Your task to perform on an android device: show emergency info Image 0: 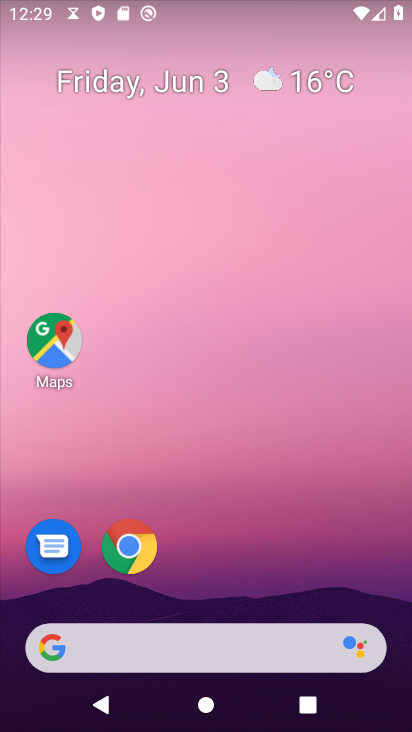
Step 0: drag from (272, 596) to (260, 33)
Your task to perform on an android device: show emergency info Image 1: 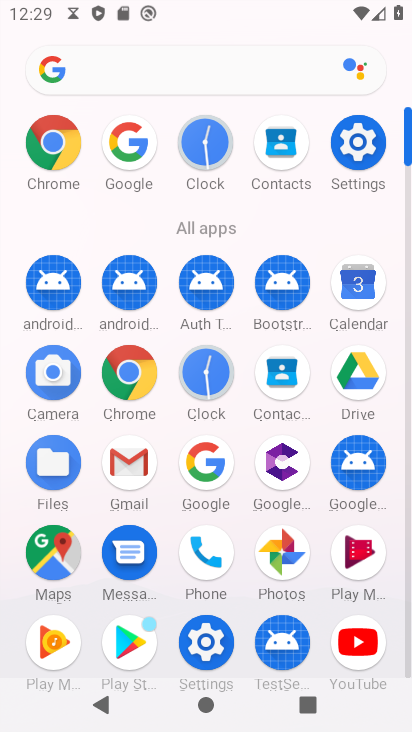
Step 1: click (352, 156)
Your task to perform on an android device: show emergency info Image 2: 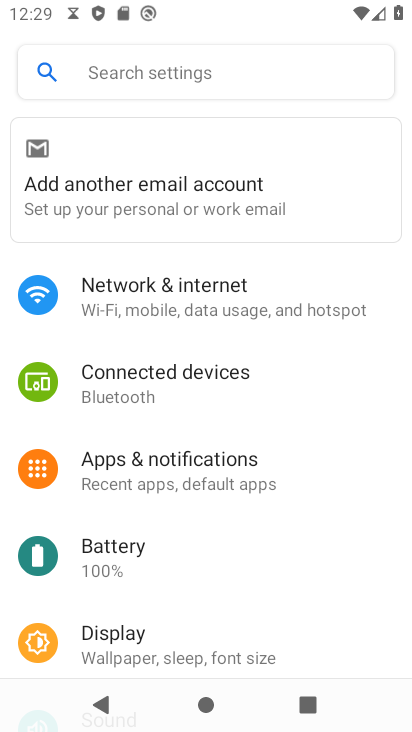
Step 2: drag from (178, 648) to (245, 86)
Your task to perform on an android device: show emergency info Image 3: 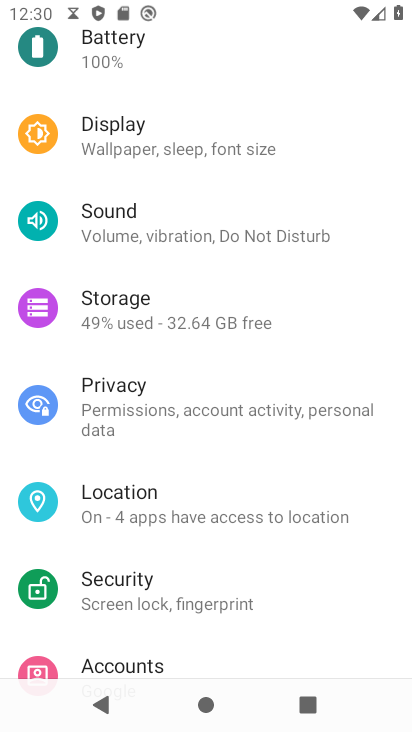
Step 3: drag from (132, 652) to (273, 42)
Your task to perform on an android device: show emergency info Image 4: 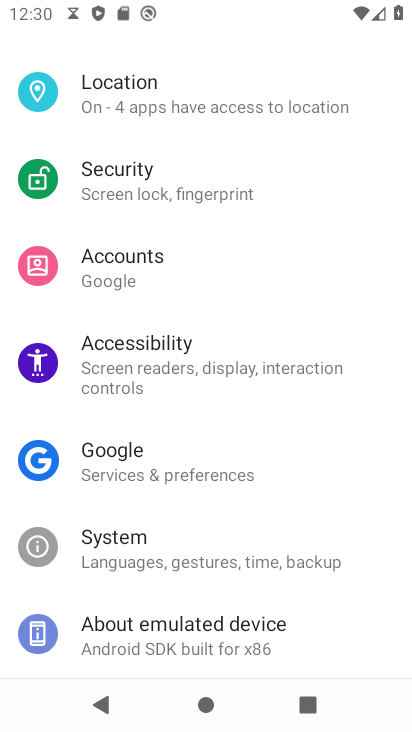
Step 4: click (197, 642)
Your task to perform on an android device: show emergency info Image 5: 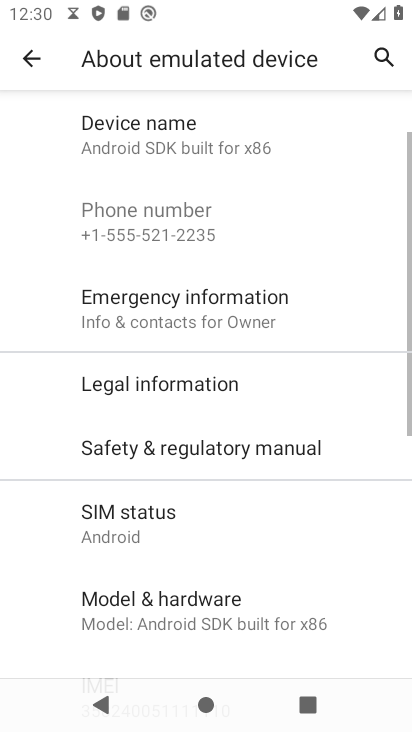
Step 5: click (138, 306)
Your task to perform on an android device: show emergency info Image 6: 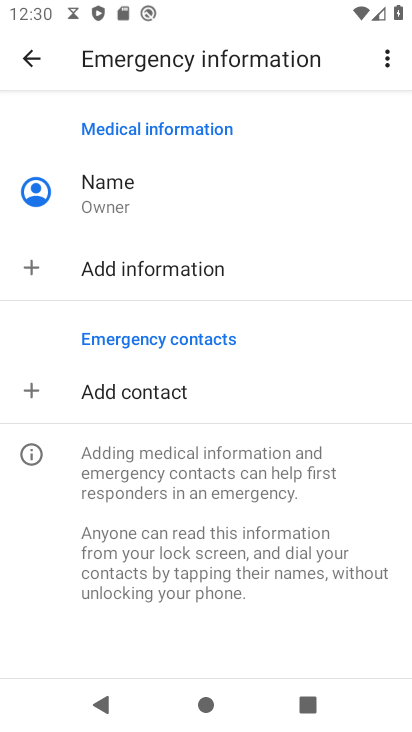
Step 6: task complete